Your task to perform on an android device: Open privacy settings Image 0: 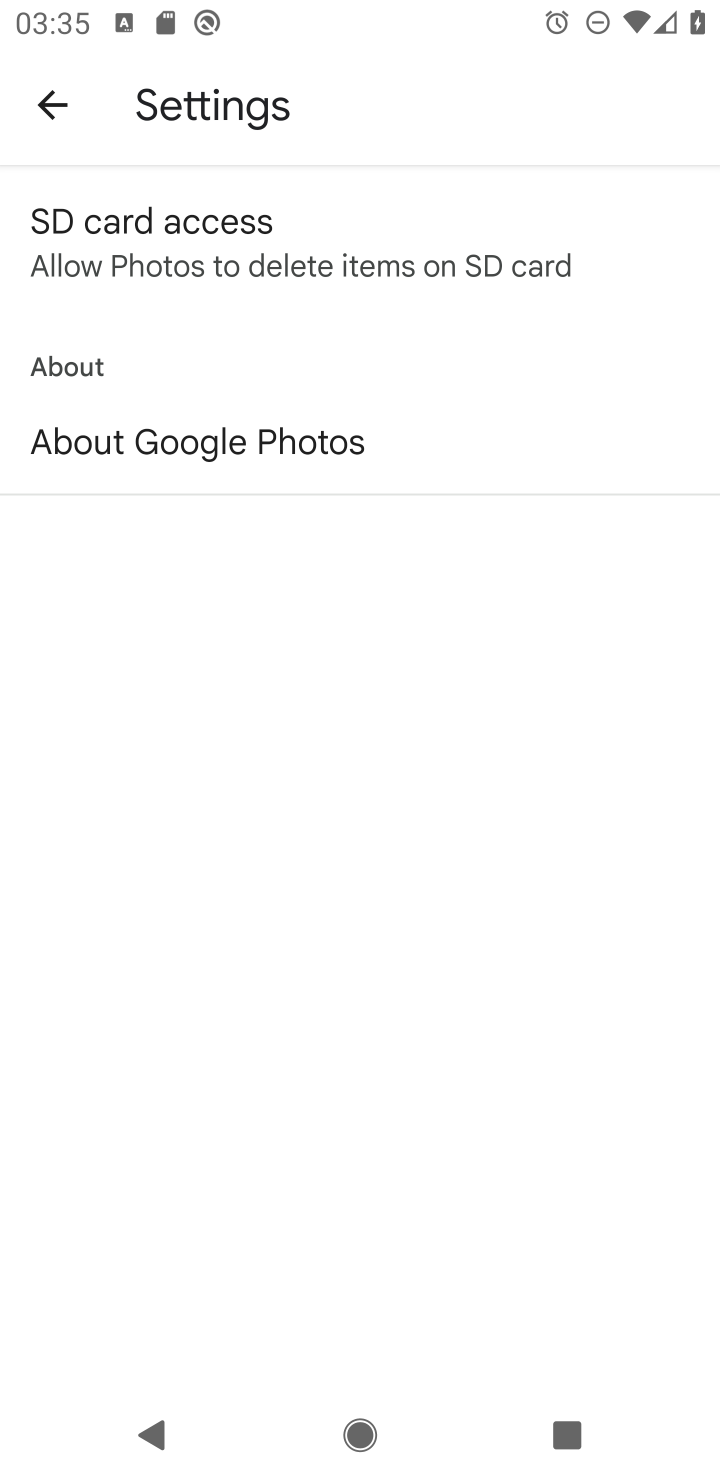
Step 0: press home button
Your task to perform on an android device: Open privacy settings Image 1: 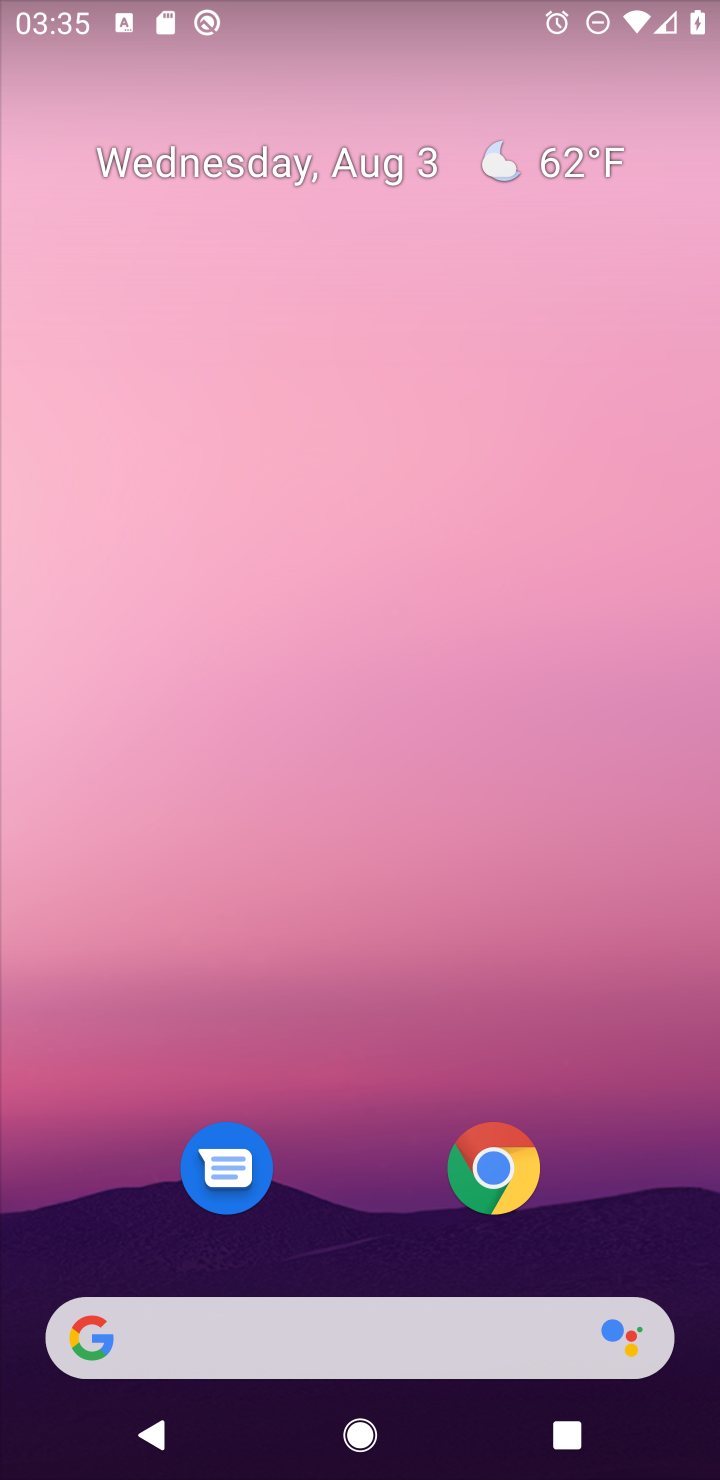
Step 1: drag from (665, 1242) to (617, 261)
Your task to perform on an android device: Open privacy settings Image 2: 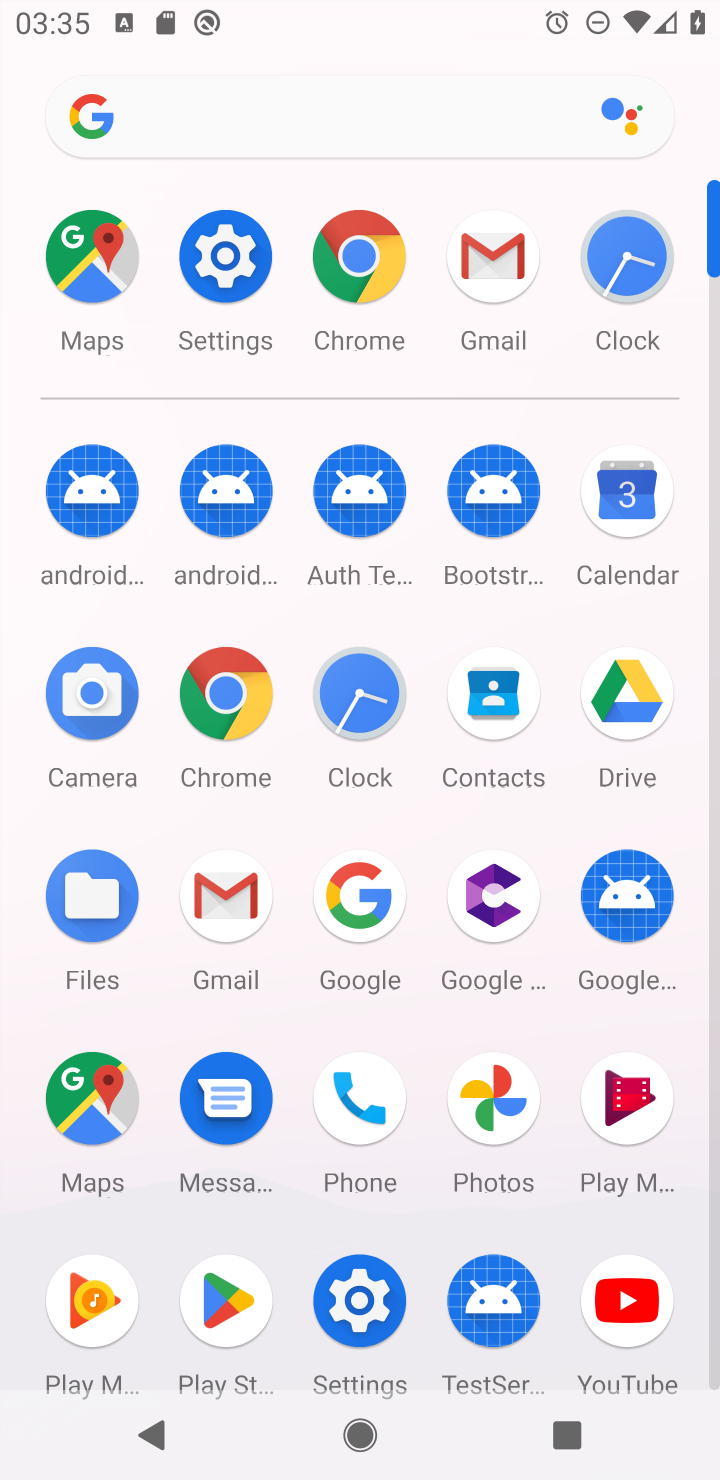
Step 2: click (353, 1290)
Your task to perform on an android device: Open privacy settings Image 3: 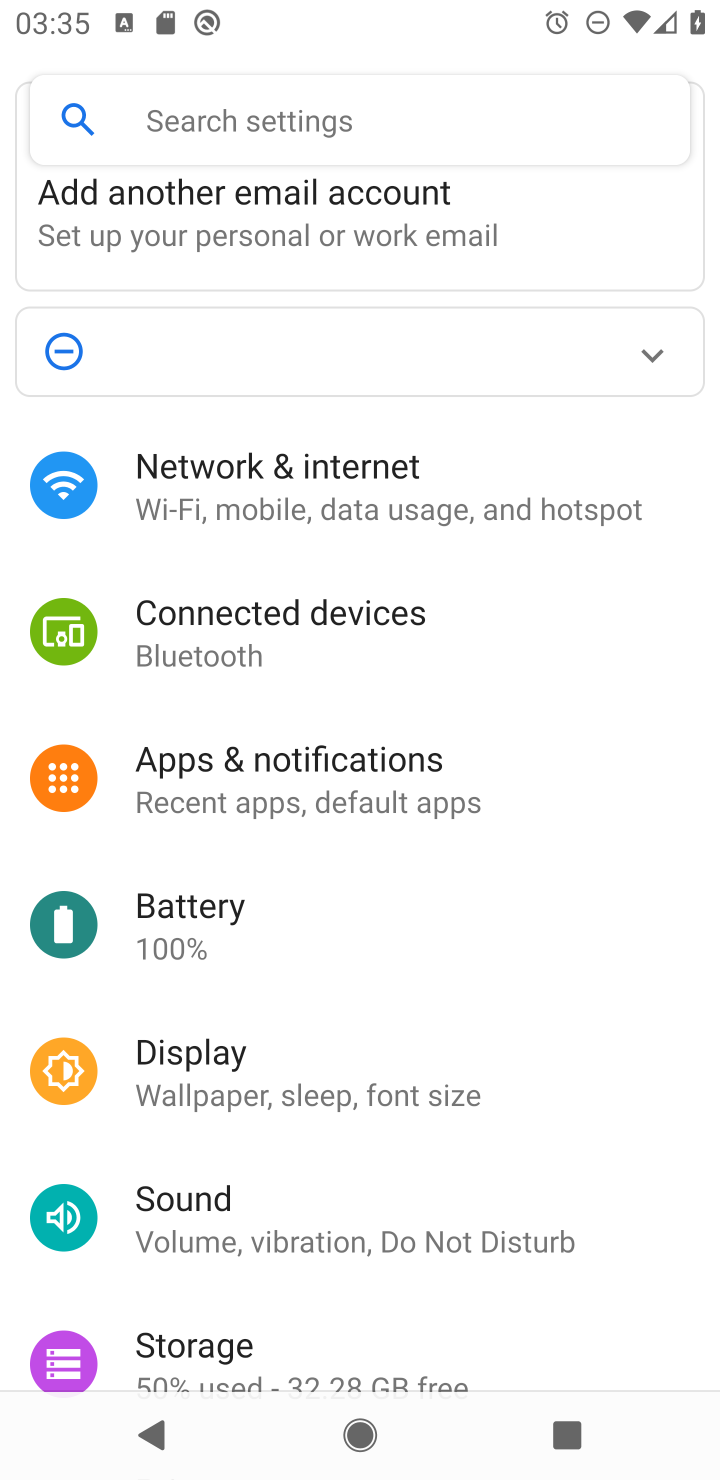
Step 3: drag from (622, 1288) to (618, 607)
Your task to perform on an android device: Open privacy settings Image 4: 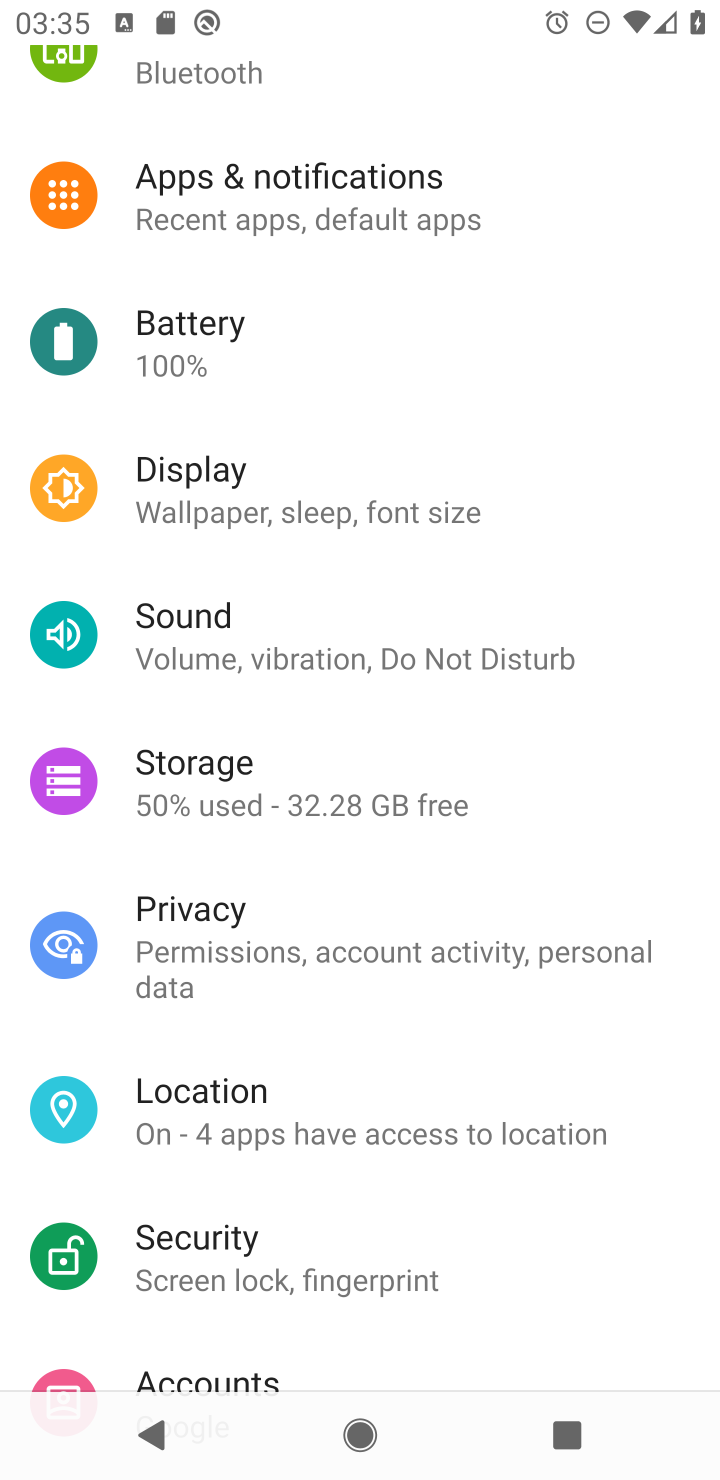
Step 4: click (166, 960)
Your task to perform on an android device: Open privacy settings Image 5: 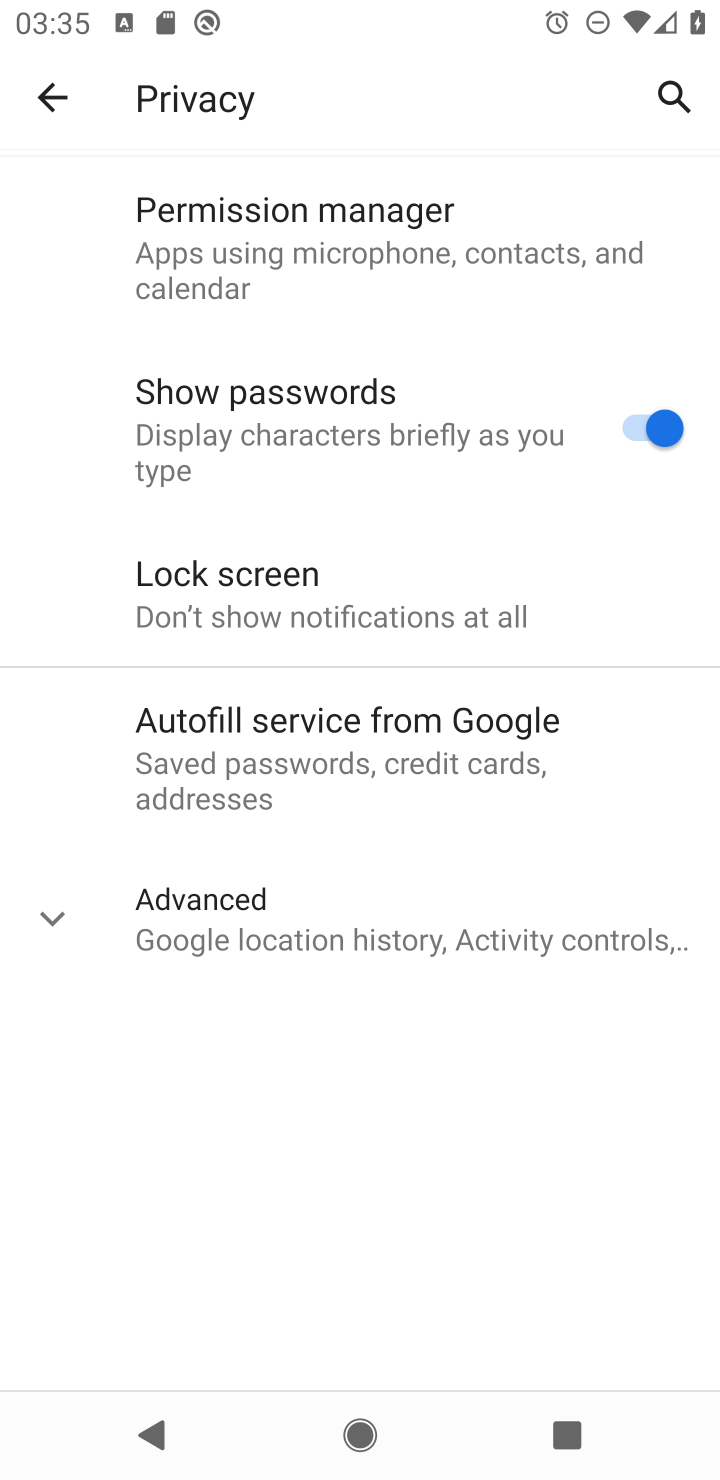
Step 5: click (29, 916)
Your task to perform on an android device: Open privacy settings Image 6: 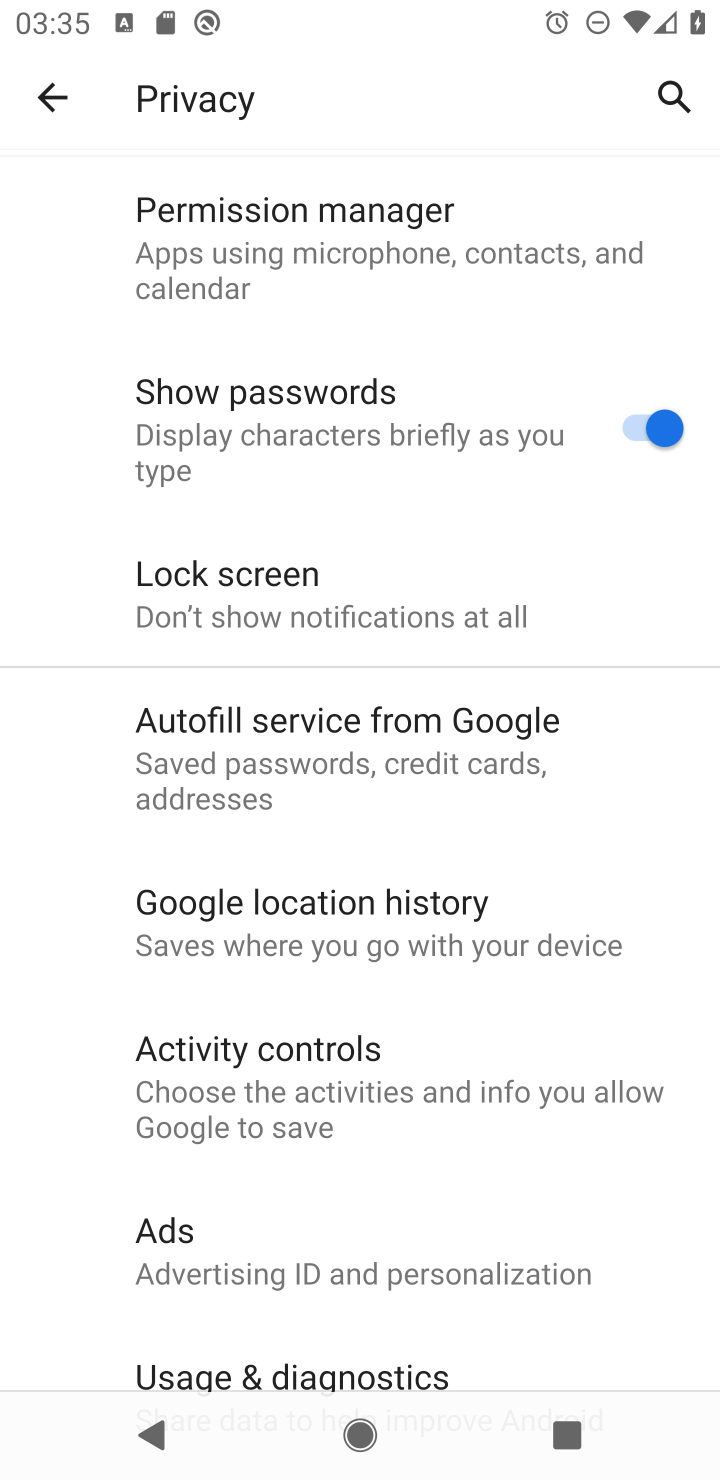
Step 6: task complete